Your task to perform on an android device: Go to calendar. Show me events next week Image 0: 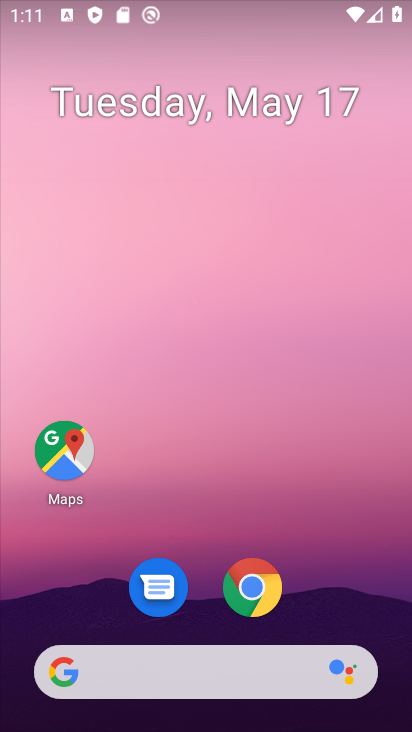
Step 0: drag from (239, 634) to (254, 150)
Your task to perform on an android device: Go to calendar. Show me events next week Image 1: 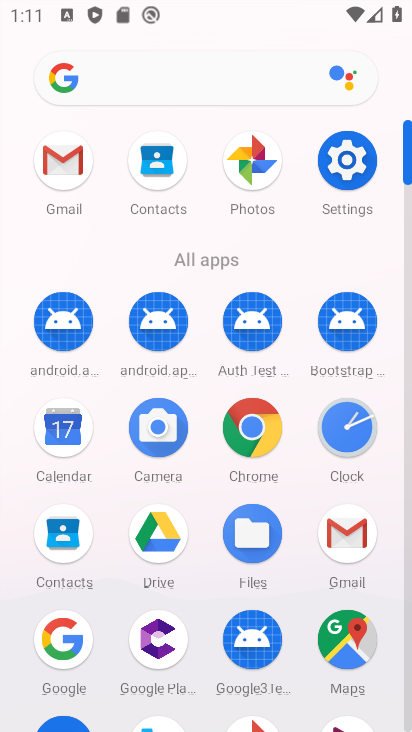
Step 1: click (53, 452)
Your task to perform on an android device: Go to calendar. Show me events next week Image 2: 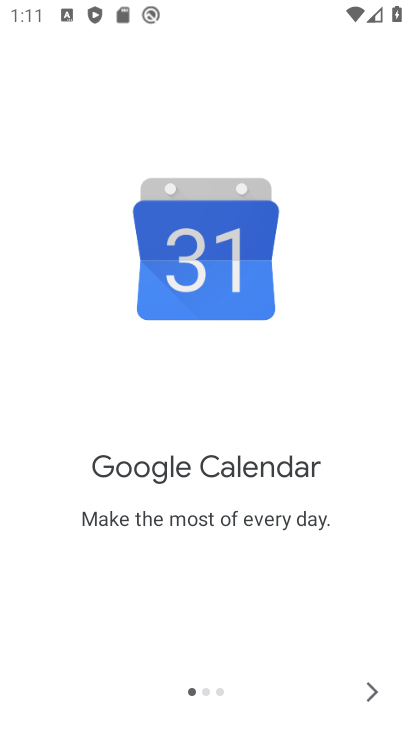
Step 2: click (372, 685)
Your task to perform on an android device: Go to calendar. Show me events next week Image 3: 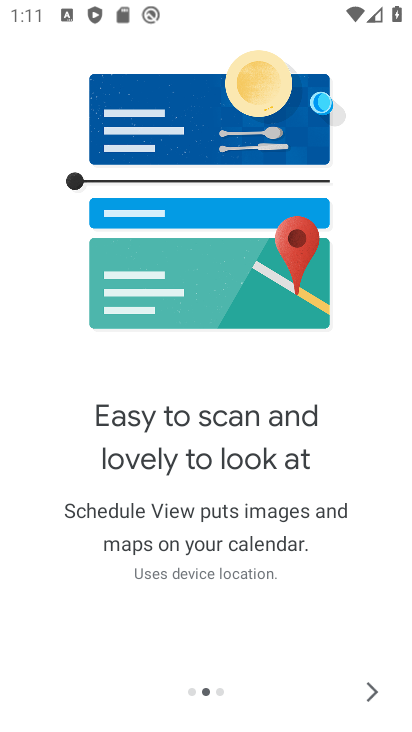
Step 3: click (373, 694)
Your task to perform on an android device: Go to calendar. Show me events next week Image 4: 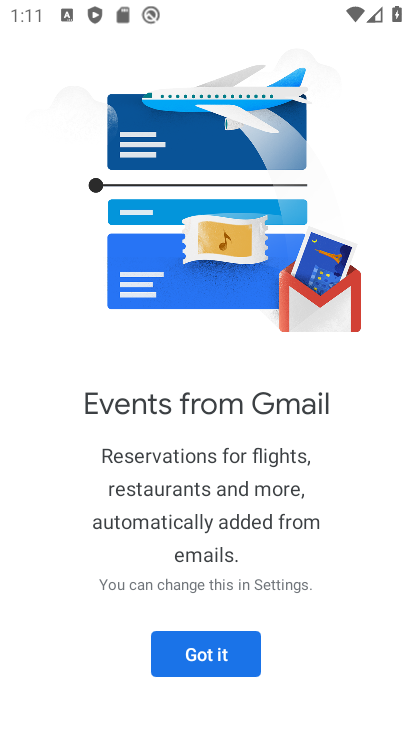
Step 4: click (233, 661)
Your task to perform on an android device: Go to calendar. Show me events next week Image 5: 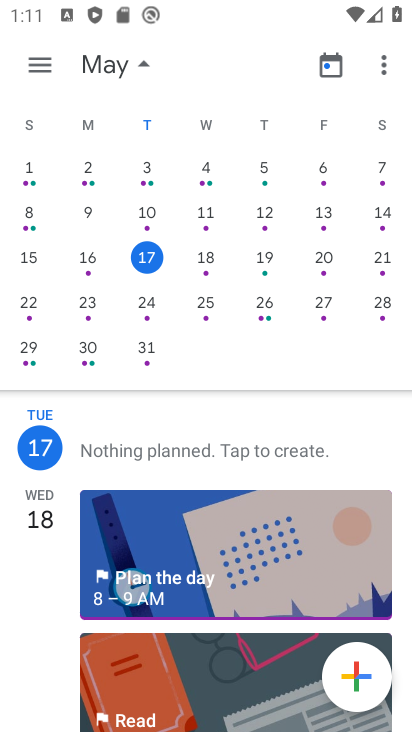
Step 5: click (207, 314)
Your task to perform on an android device: Go to calendar. Show me events next week Image 6: 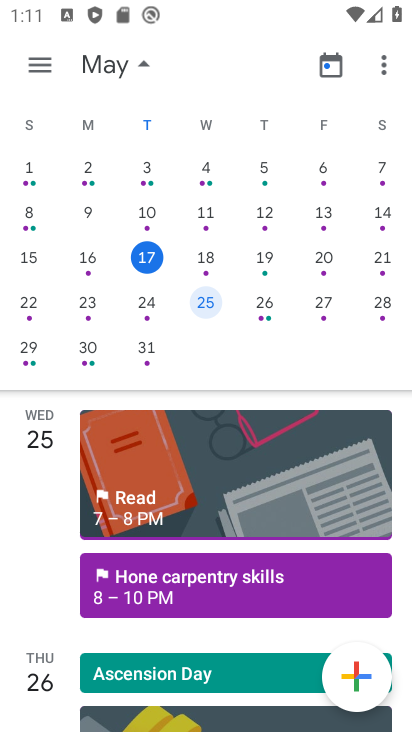
Step 6: drag from (240, 579) to (384, 238)
Your task to perform on an android device: Go to calendar. Show me events next week Image 7: 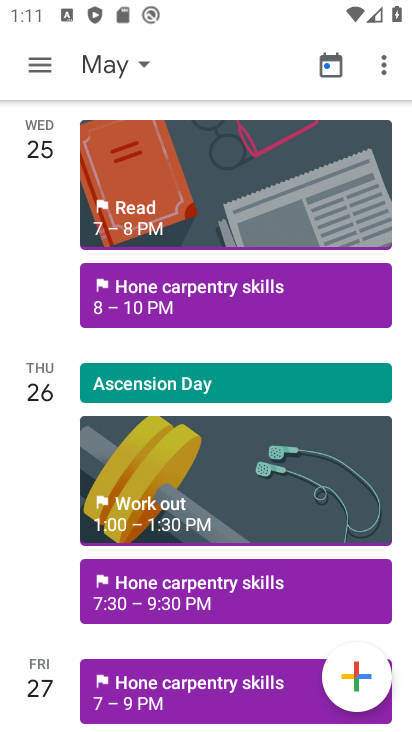
Step 7: click (266, 257)
Your task to perform on an android device: Go to calendar. Show me events next week Image 8: 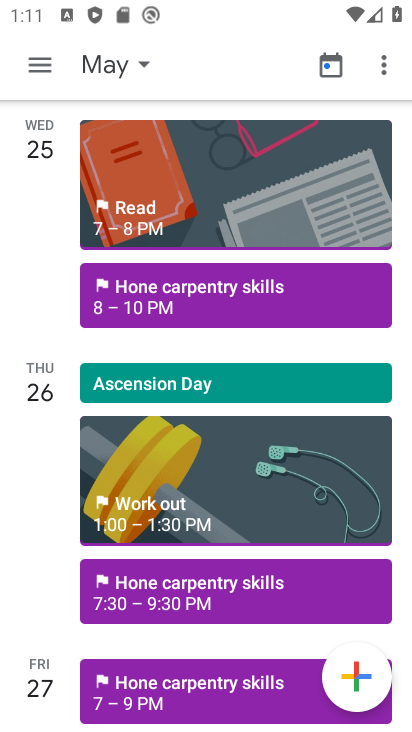
Step 8: click (269, 280)
Your task to perform on an android device: Go to calendar. Show me events next week Image 9: 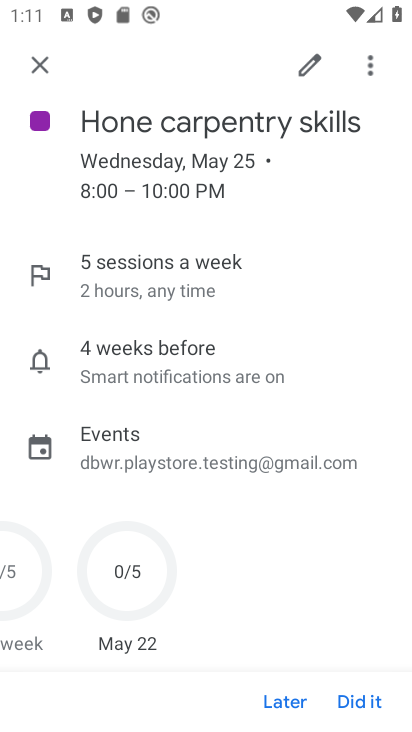
Step 9: task complete